Your task to perform on an android device: stop showing notifications on the lock screen Image 0: 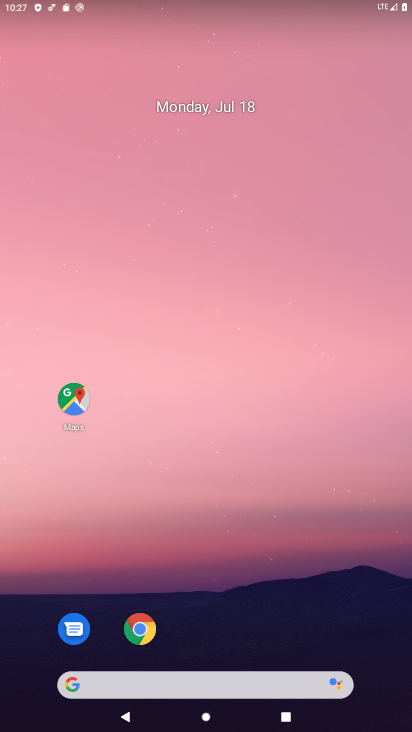
Step 0: drag from (249, 609) to (164, 16)
Your task to perform on an android device: stop showing notifications on the lock screen Image 1: 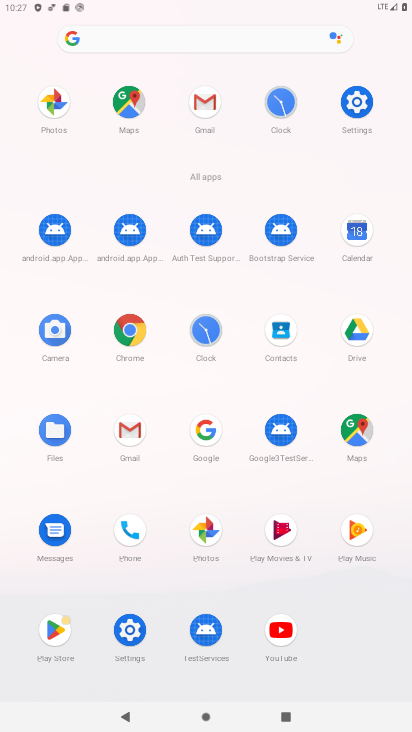
Step 1: click (360, 94)
Your task to perform on an android device: stop showing notifications on the lock screen Image 2: 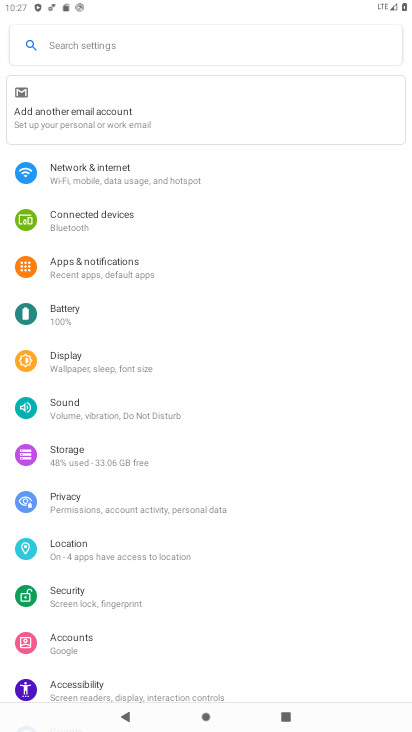
Step 2: click (163, 278)
Your task to perform on an android device: stop showing notifications on the lock screen Image 3: 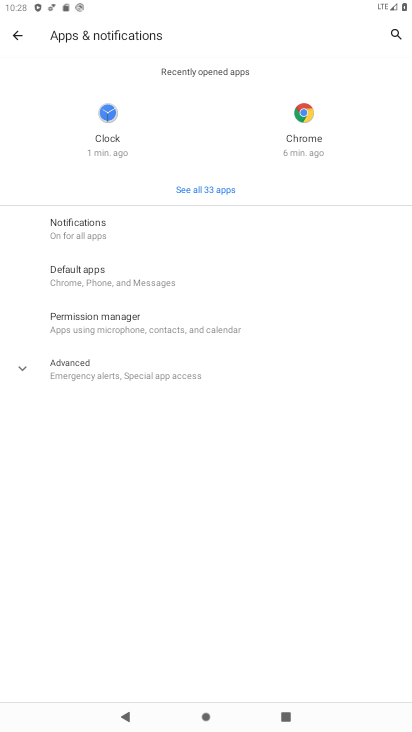
Step 3: click (131, 227)
Your task to perform on an android device: stop showing notifications on the lock screen Image 4: 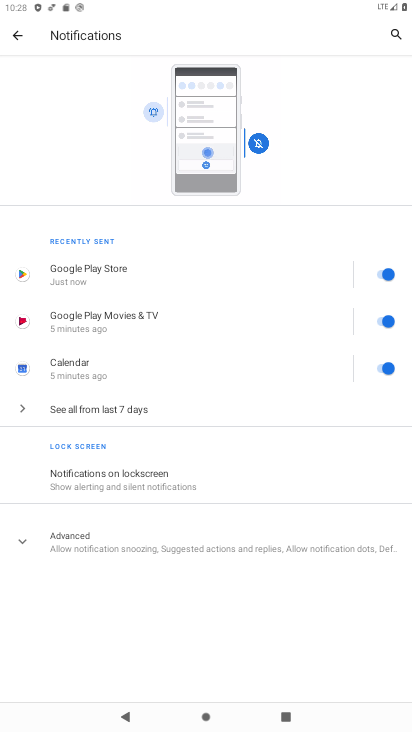
Step 4: click (142, 487)
Your task to perform on an android device: stop showing notifications on the lock screen Image 5: 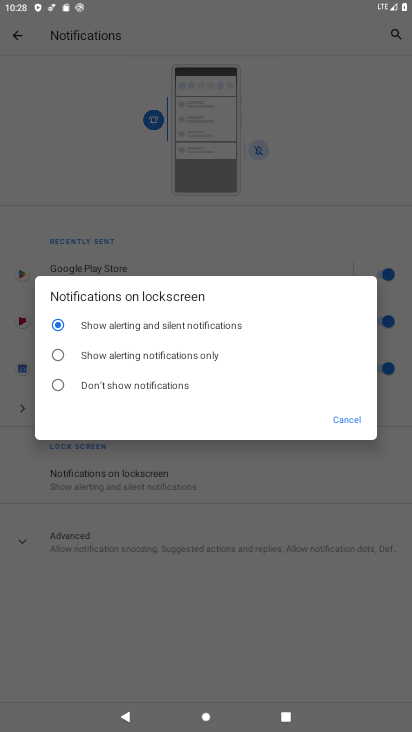
Step 5: click (175, 377)
Your task to perform on an android device: stop showing notifications on the lock screen Image 6: 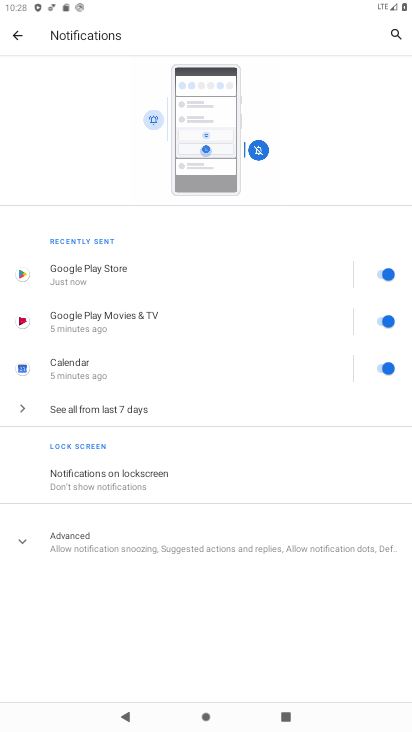
Step 6: task complete